Your task to perform on an android device: add a label to a message in the gmail app Image 0: 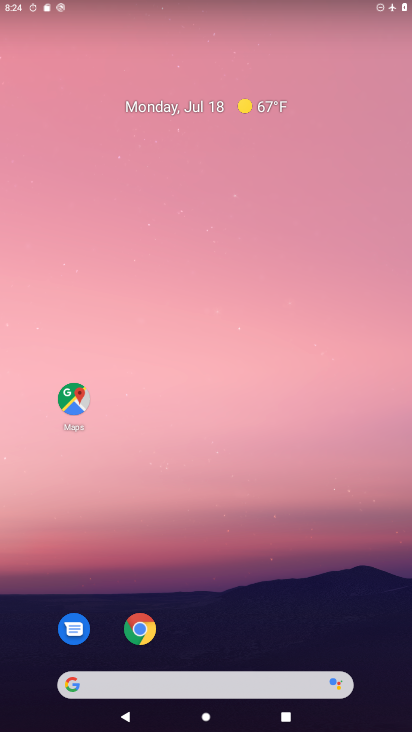
Step 0: drag from (214, 661) to (135, 40)
Your task to perform on an android device: add a label to a message in the gmail app Image 1: 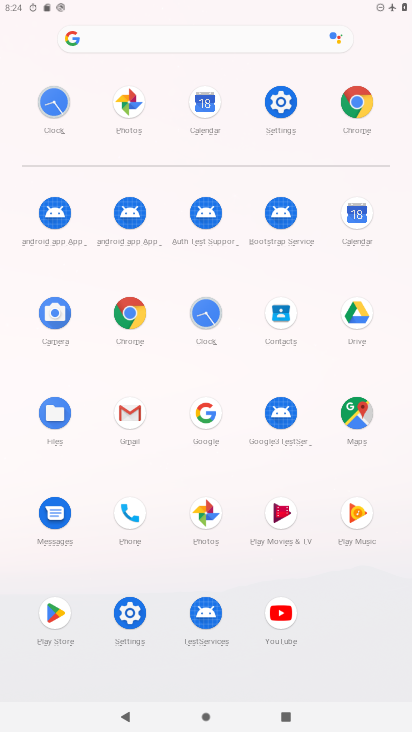
Step 1: click (128, 410)
Your task to perform on an android device: add a label to a message in the gmail app Image 2: 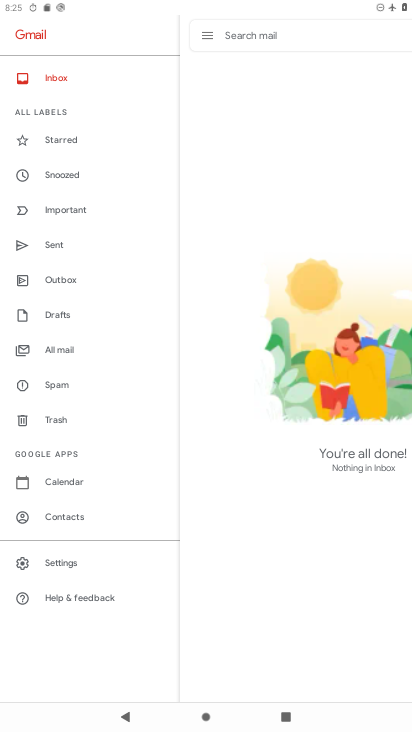
Step 2: click (65, 81)
Your task to perform on an android device: add a label to a message in the gmail app Image 3: 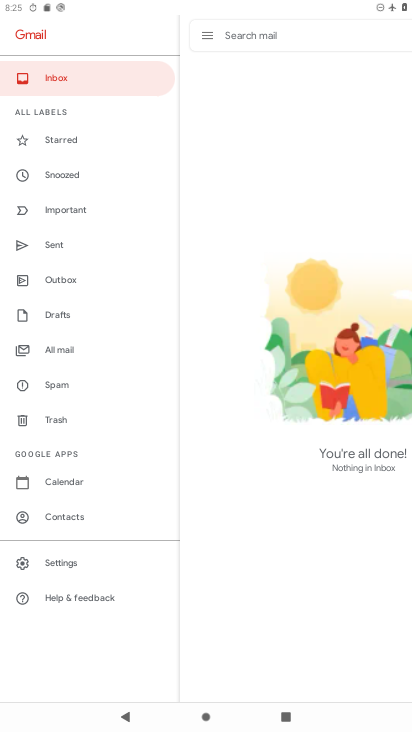
Step 3: task complete